Your task to perform on an android device: Open the map Image 0: 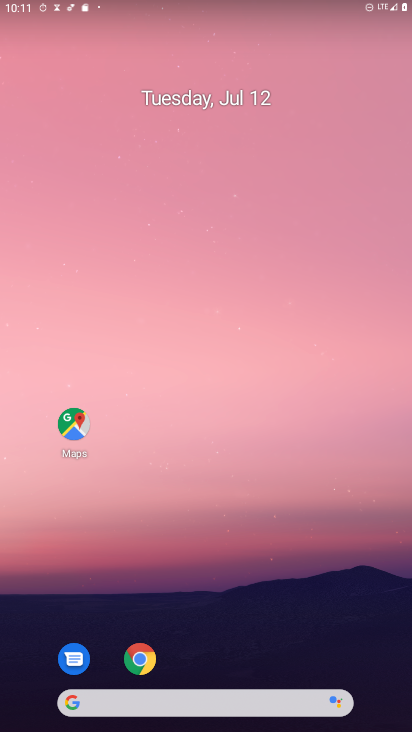
Step 0: click (73, 423)
Your task to perform on an android device: Open the map Image 1: 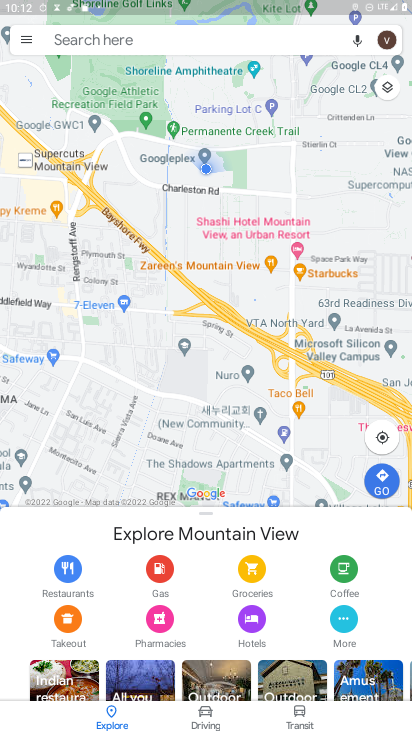
Step 1: task complete